Your task to perform on an android device: Go to accessibility settings Image 0: 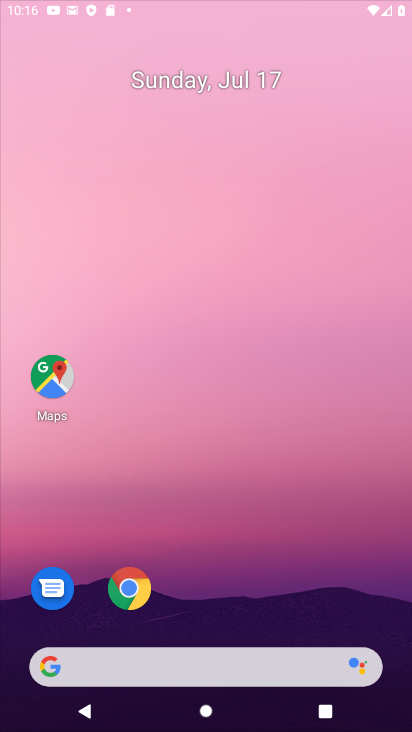
Step 0: press home button
Your task to perform on an android device: Go to accessibility settings Image 1: 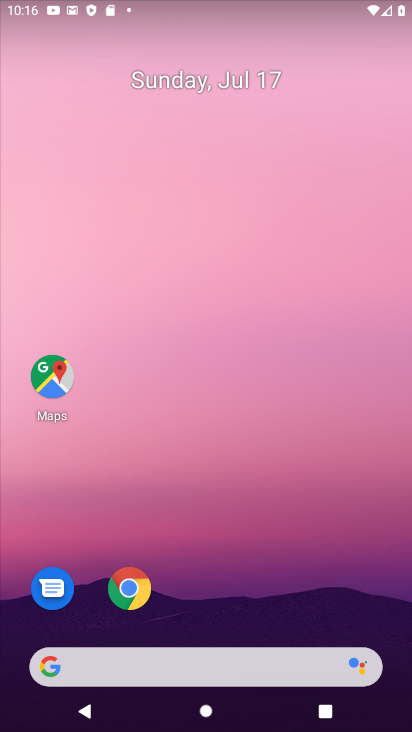
Step 1: drag from (165, 605) to (283, 51)
Your task to perform on an android device: Go to accessibility settings Image 2: 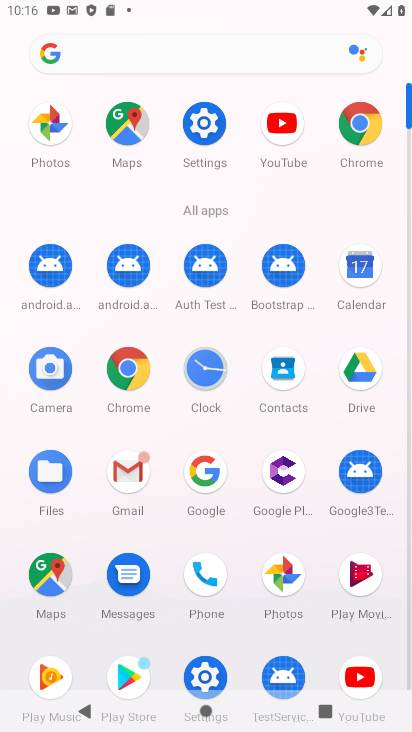
Step 2: click (215, 122)
Your task to perform on an android device: Go to accessibility settings Image 3: 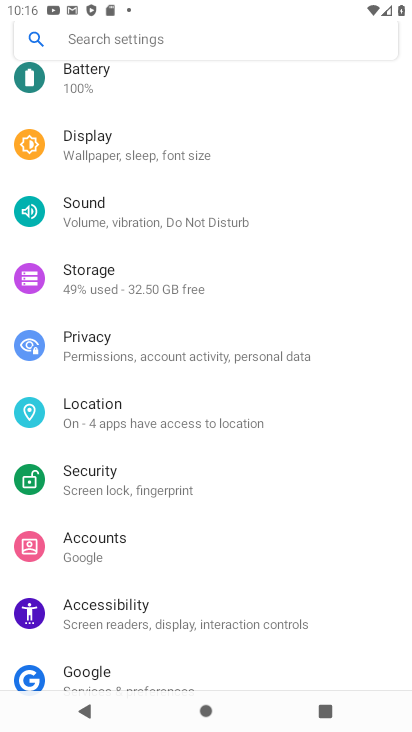
Step 3: drag from (200, 510) to (228, 179)
Your task to perform on an android device: Go to accessibility settings Image 4: 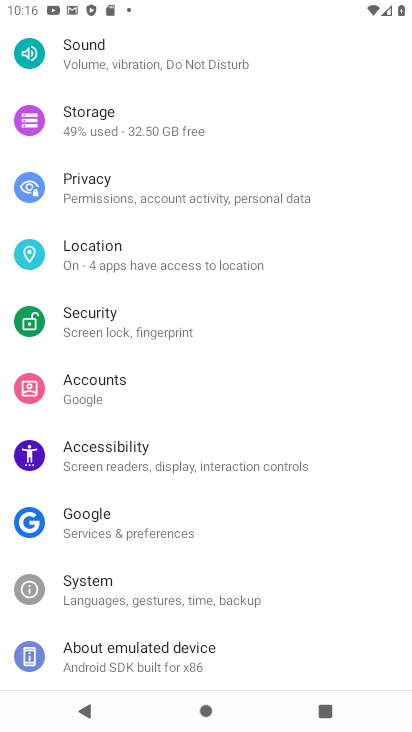
Step 4: click (54, 470)
Your task to perform on an android device: Go to accessibility settings Image 5: 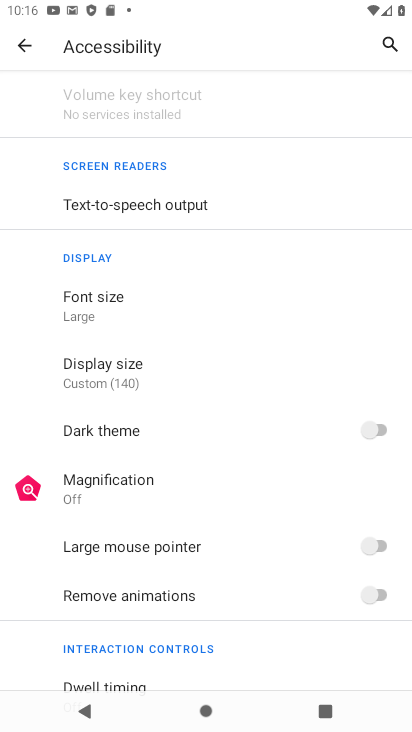
Step 5: task complete